Your task to perform on an android device: Check the news Image 0: 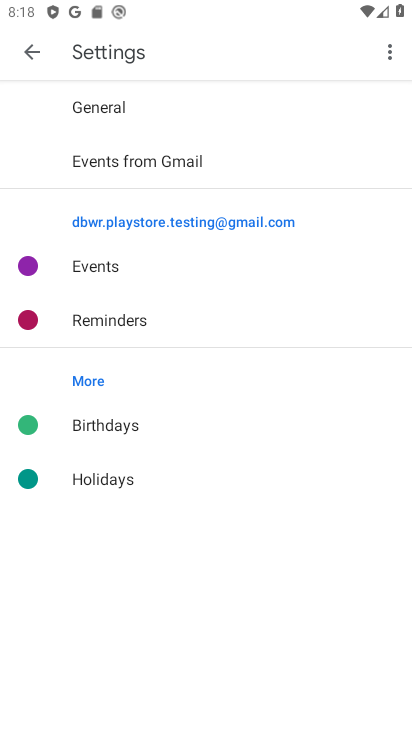
Step 0: press home button
Your task to perform on an android device: Check the news Image 1: 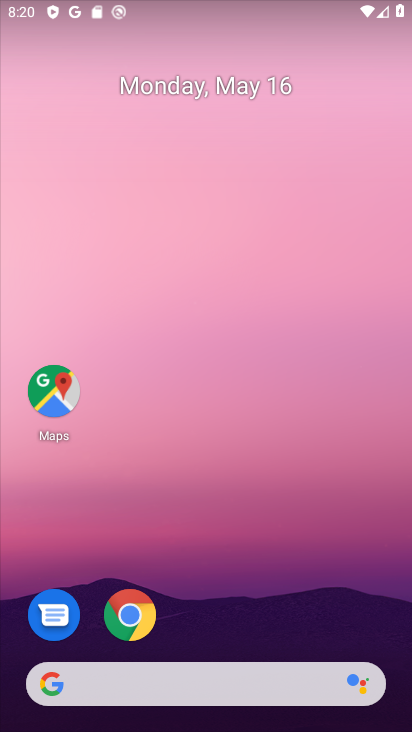
Step 1: click (163, 676)
Your task to perform on an android device: Check the news Image 2: 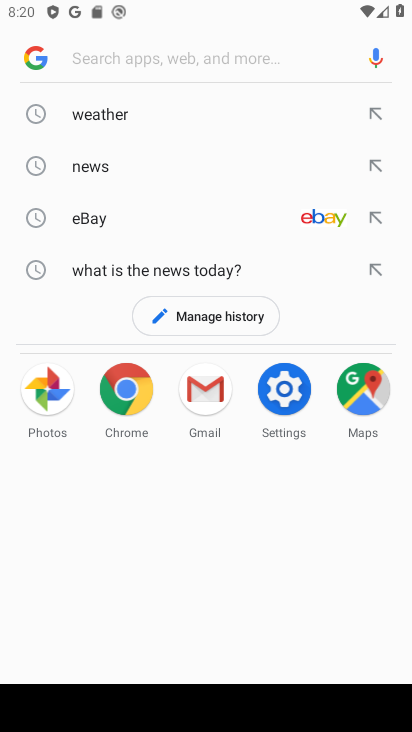
Step 2: click (160, 172)
Your task to perform on an android device: Check the news Image 3: 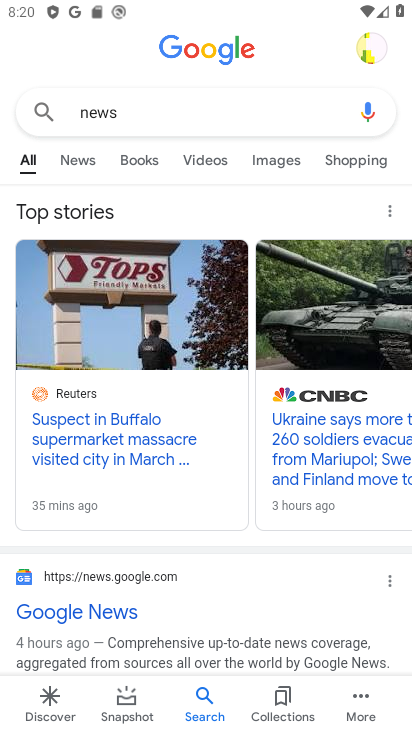
Step 3: task complete